Your task to perform on an android device: Search for sushi restaurants on Maps Image 0: 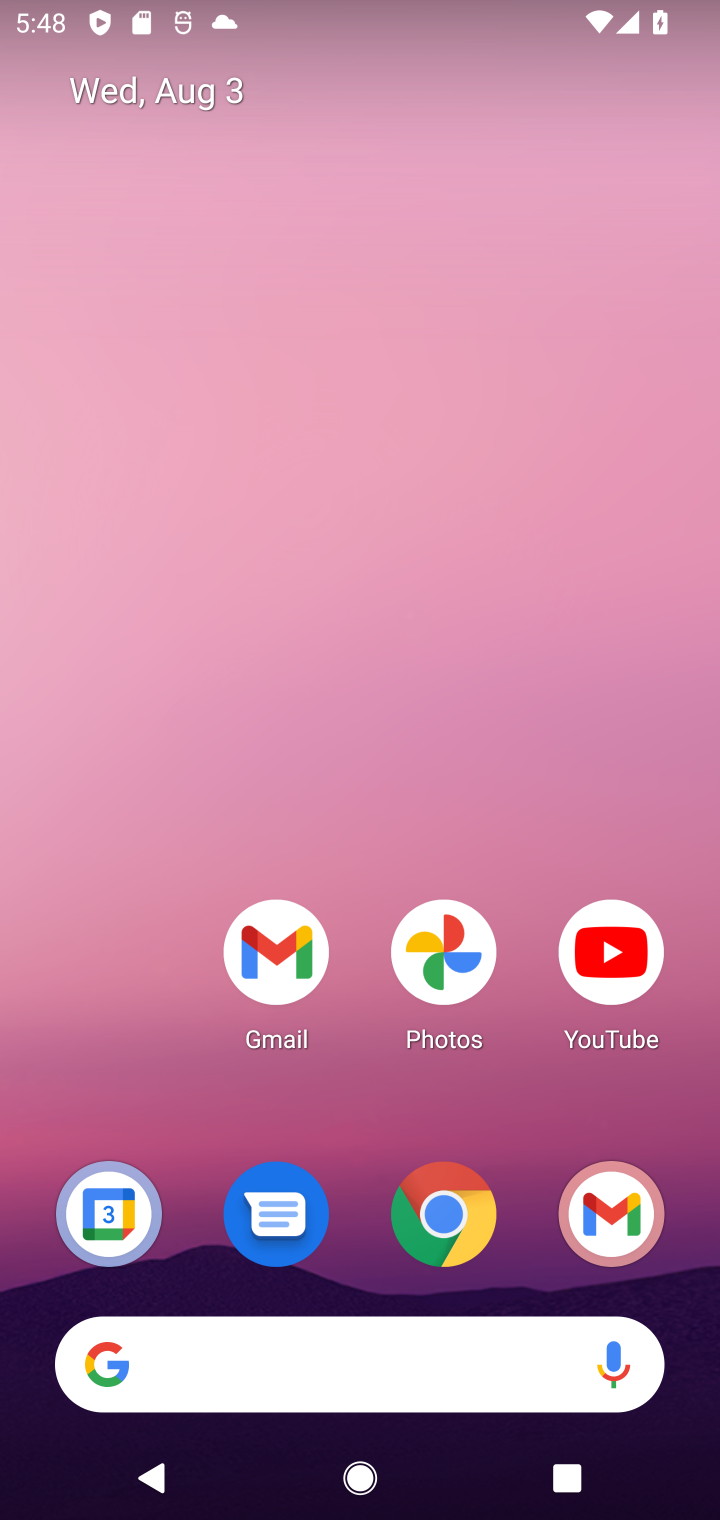
Step 0: drag from (0, 1123) to (184, 13)
Your task to perform on an android device: Search for sushi restaurants on Maps Image 1: 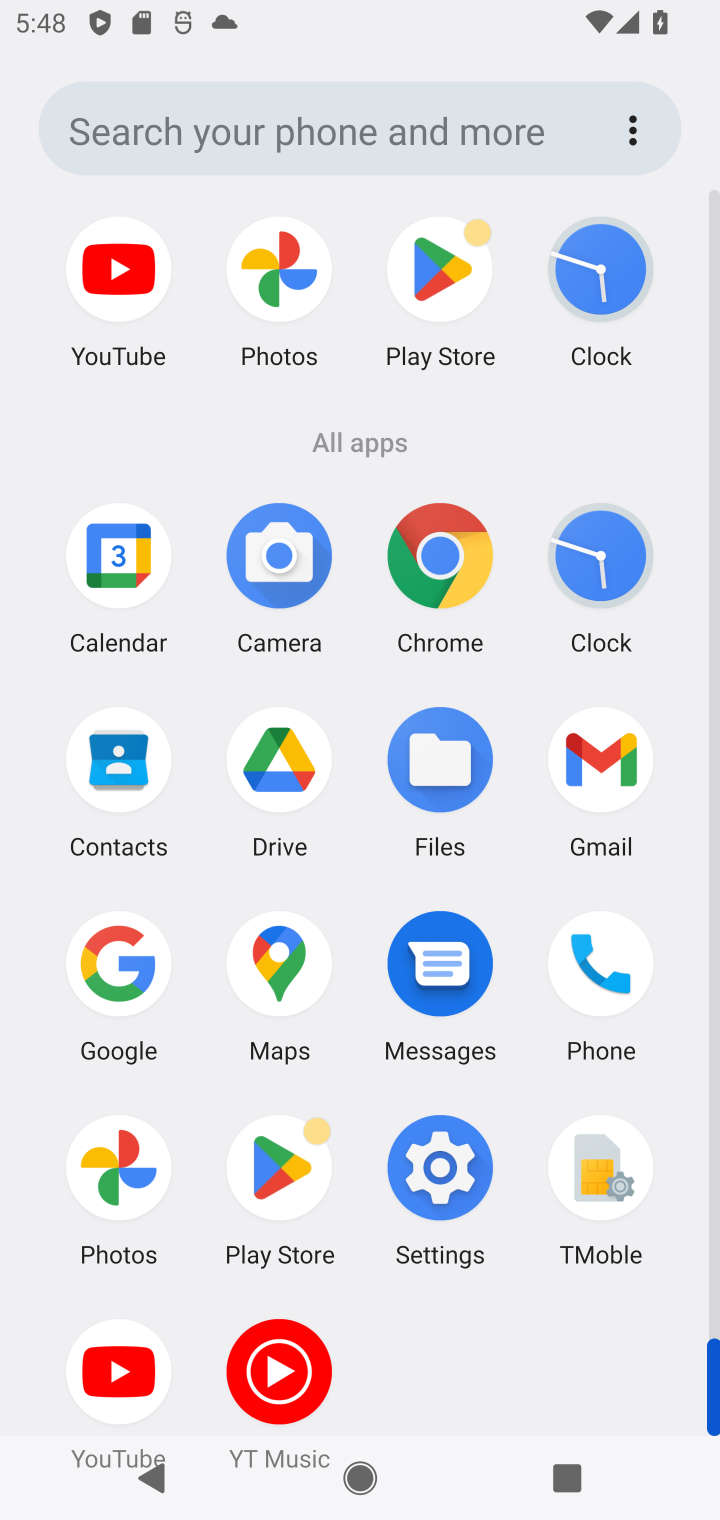
Step 1: click (292, 957)
Your task to perform on an android device: Search for sushi restaurants on Maps Image 2: 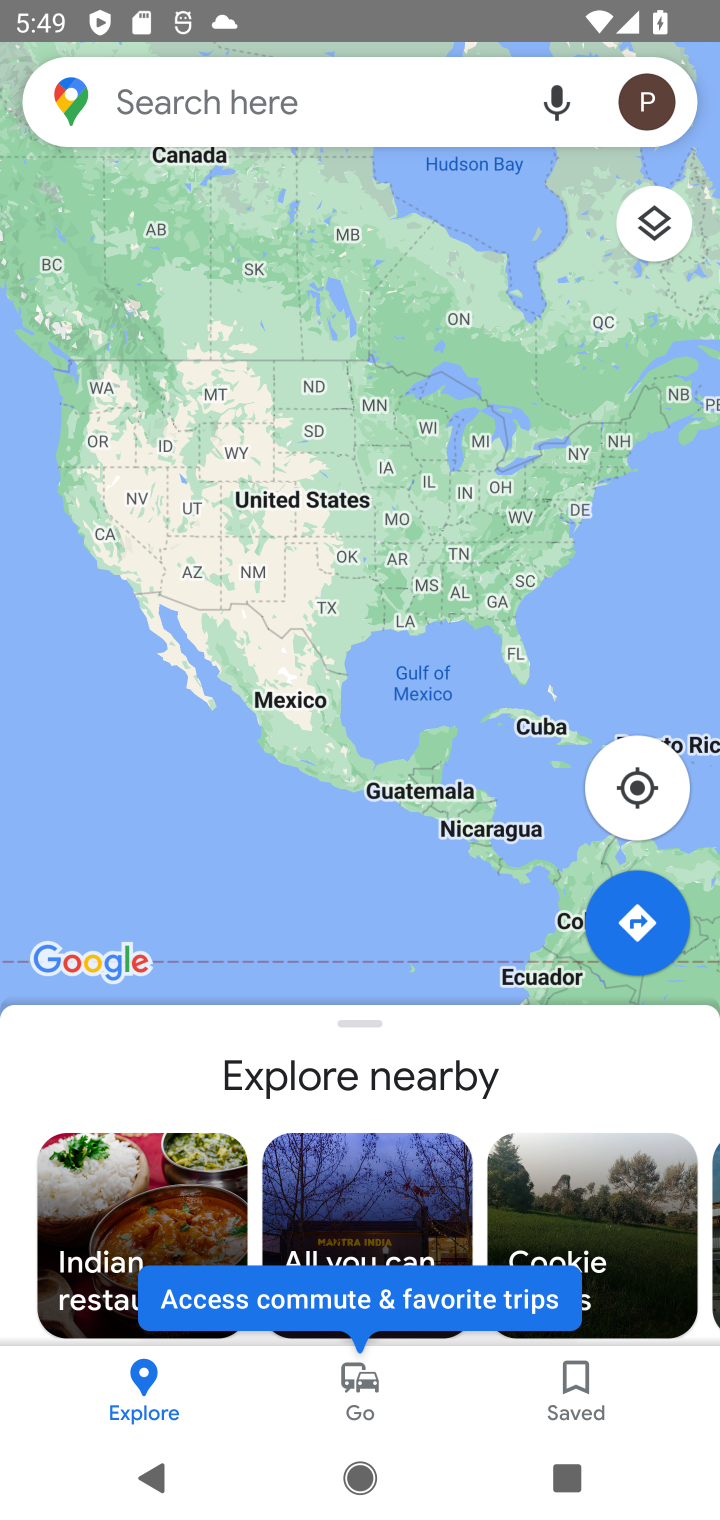
Step 2: click (366, 103)
Your task to perform on an android device: Search for sushi restaurants on Maps Image 3: 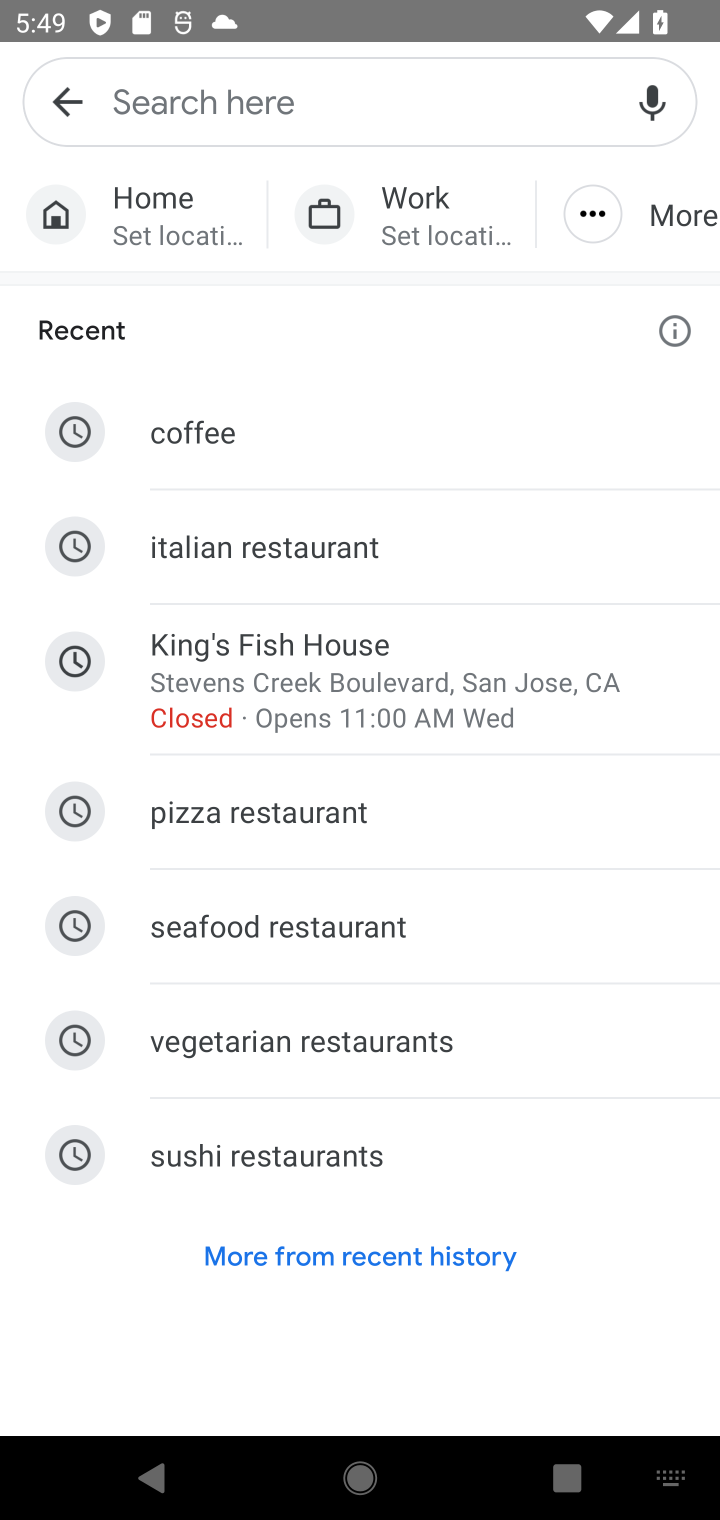
Step 3: click (290, 1144)
Your task to perform on an android device: Search for sushi restaurants on Maps Image 4: 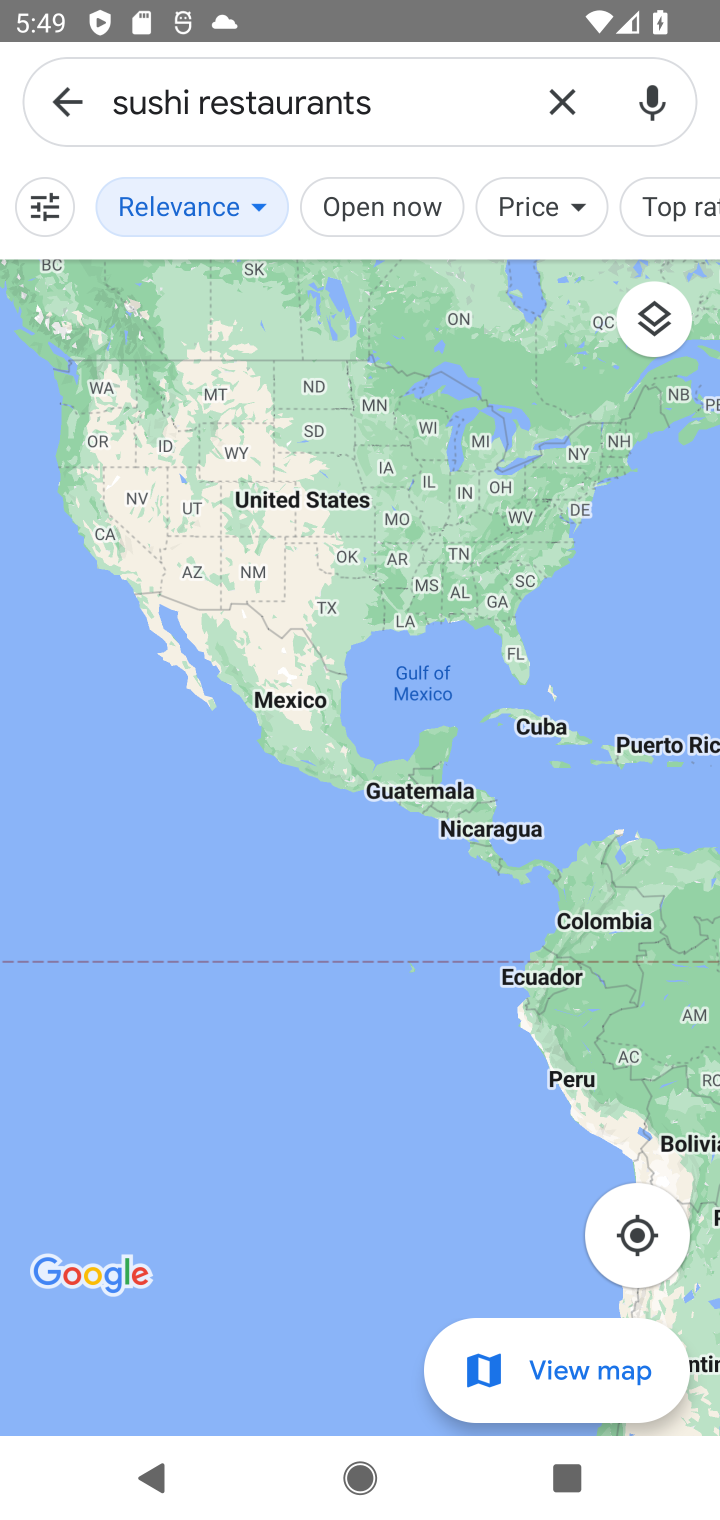
Step 4: task complete